Your task to perform on an android device: change alarm snooze length Image 0: 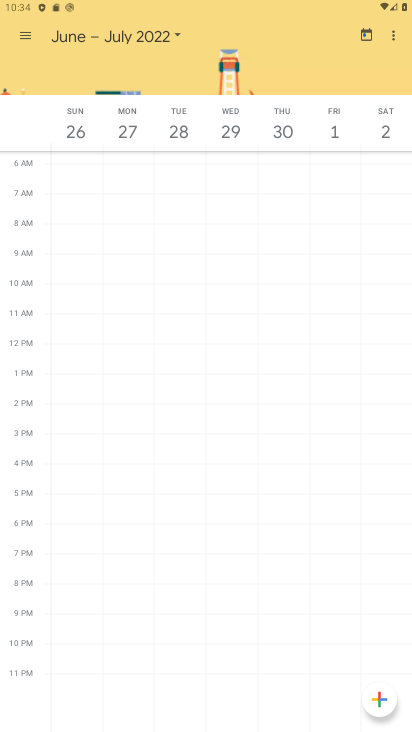
Step 0: press home button
Your task to perform on an android device: change alarm snooze length Image 1: 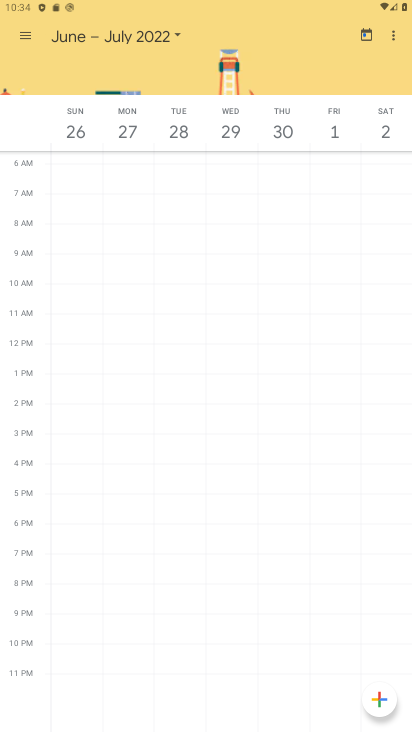
Step 1: press home button
Your task to perform on an android device: change alarm snooze length Image 2: 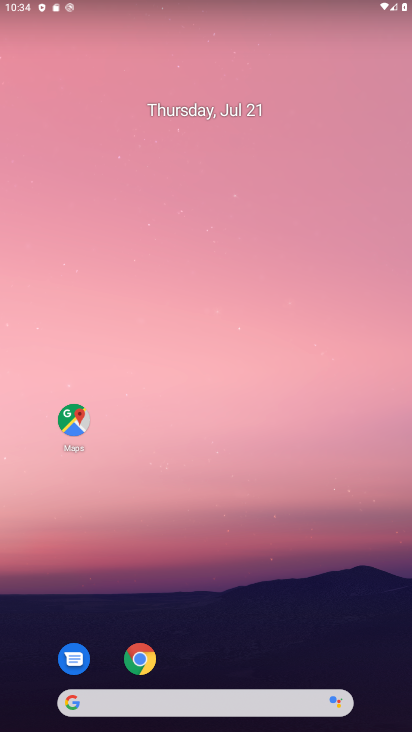
Step 2: drag from (220, 729) to (214, 193)
Your task to perform on an android device: change alarm snooze length Image 3: 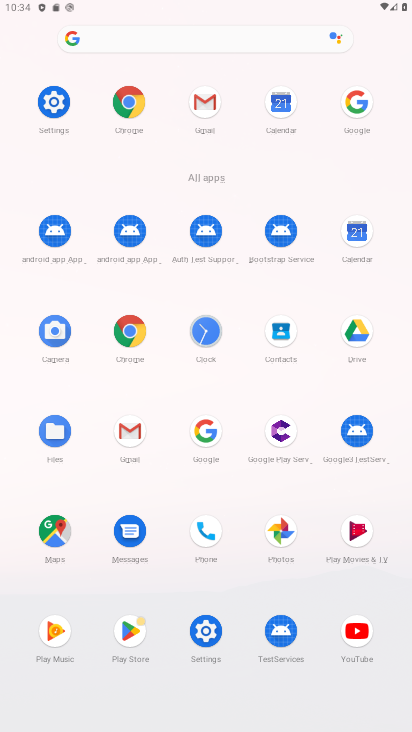
Step 3: click (203, 336)
Your task to perform on an android device: change alarm snooze length Image 4: 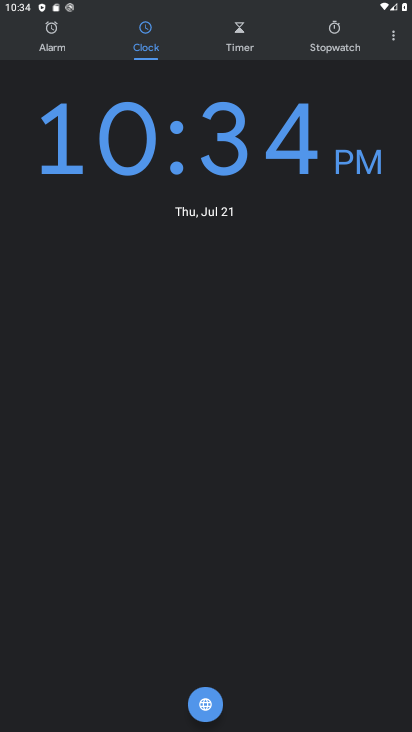
Step 4: click (395, 39)
Your task to perform on an android device: change alarm snooze length Image 5: 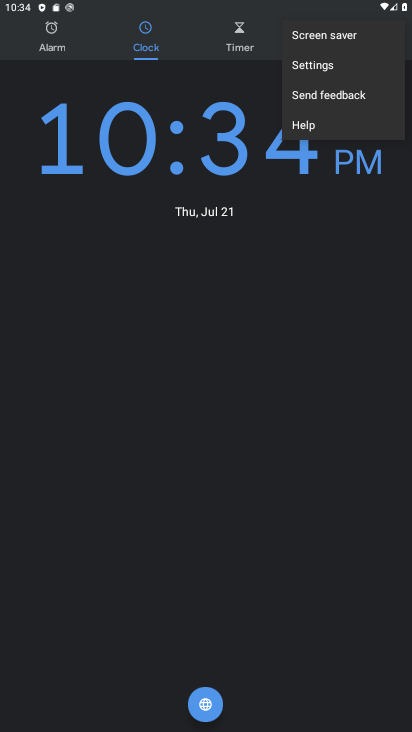
Step 5: click (323, 58)
Your task to perform on an android device: change alarm snooze length Image 6: 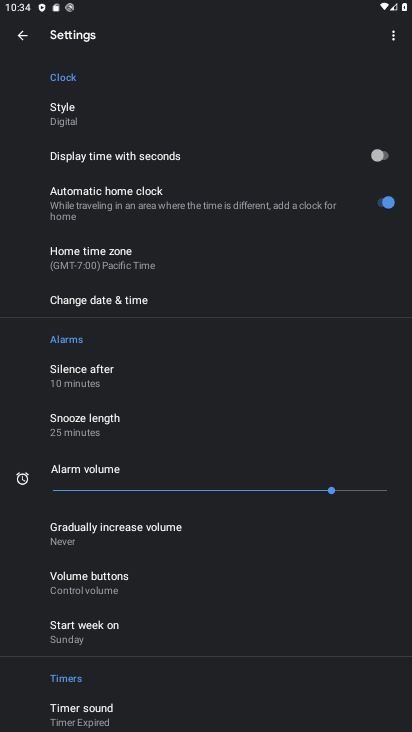
Step 6: click (94, 422)
Your task to perform on an android device: change alarm snooze length Image 7: 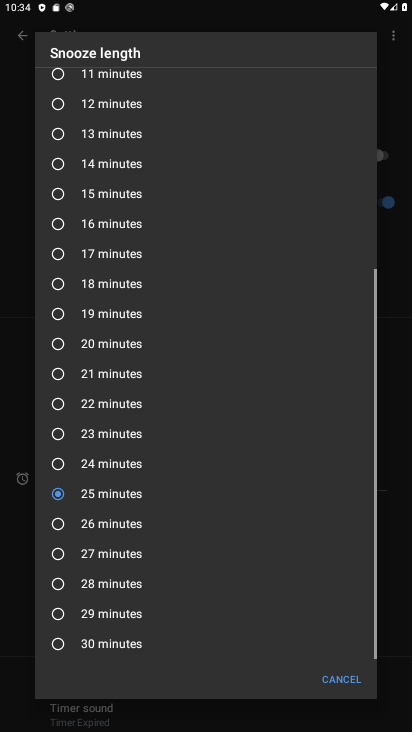
Step 7: click (56, 642)
Your task to perform on an android device: change alarm snooze length Image 8: 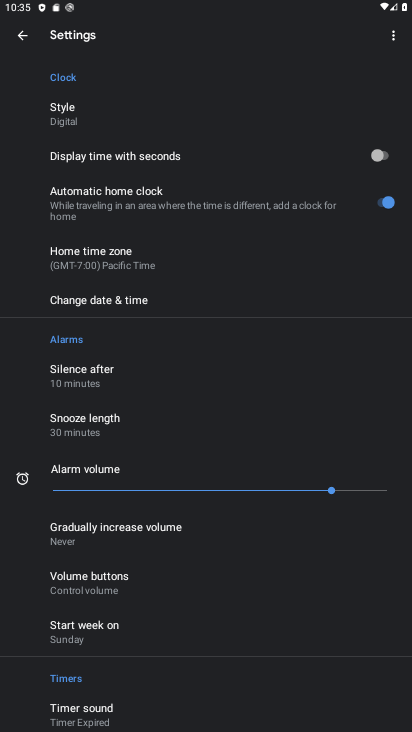
Step 8: task complete